Your task to perform on an android device: Go to accessibility settings Image 0: 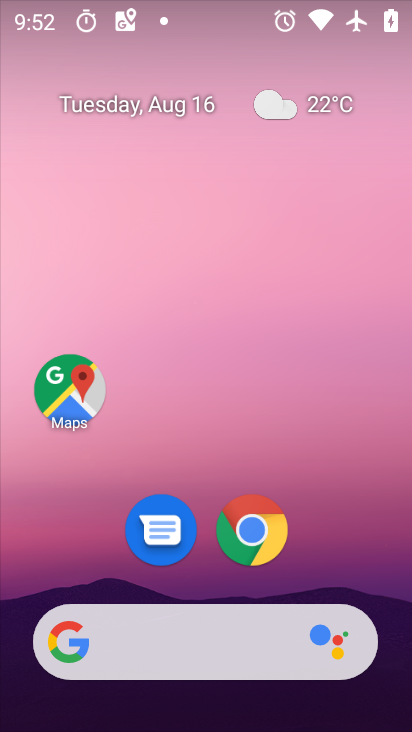
Step 0: drag from (340, 516) to (317, 146)
Your task to perform on an android device: Go to accessibility settings Image 1: 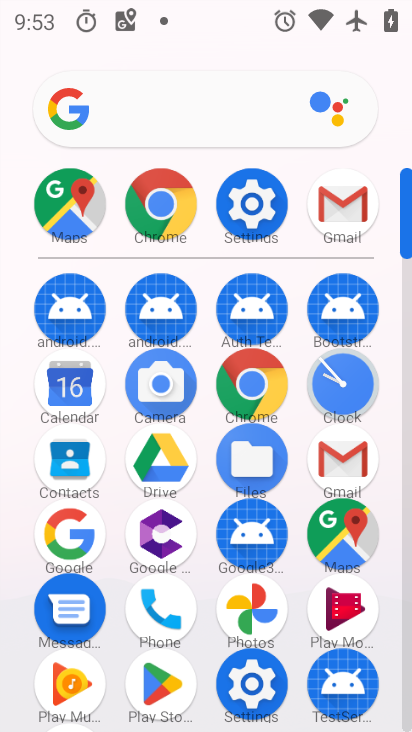
Step 1: click (249, 682)
Your task to perform on an android device: Go to accessibility settings Image 2: 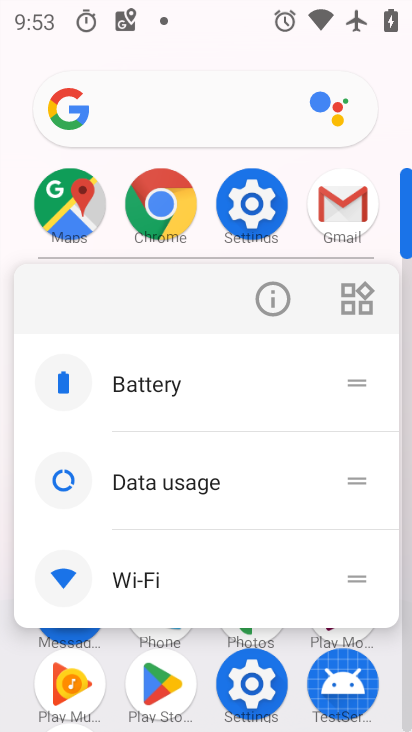
Step 2: click (255, 687)
Your task to perform on an android device: Go to accessibility settings Image 3: 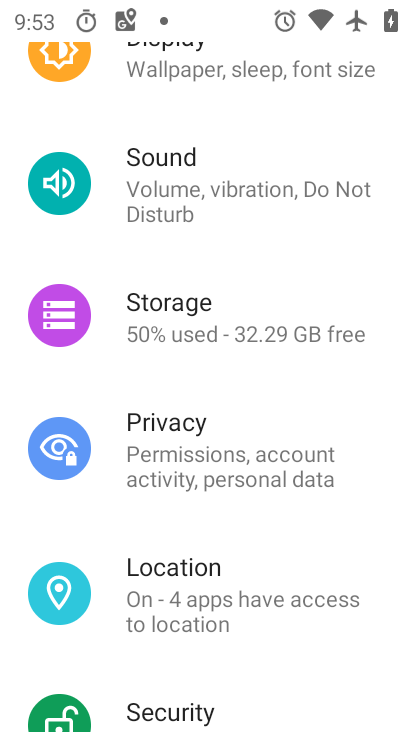
Step 3: drag from (333, 624) to (363, 81)
Your task to perform on an android device: Go to accessibility settings Image 4: 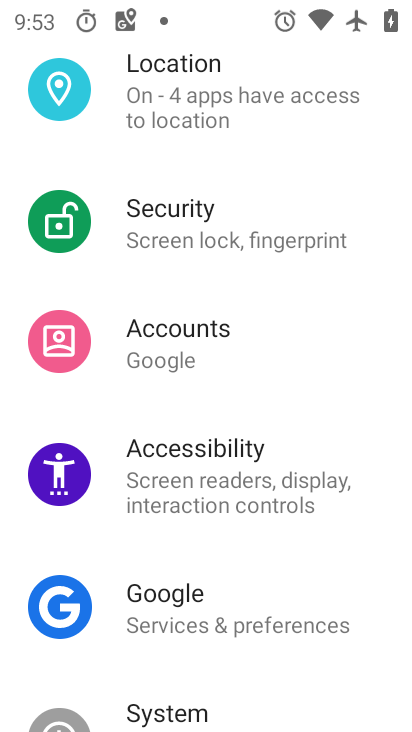
Step 4: click (216, 491)
Your task to perform on an android device: Go to accessibility settings Image 5: 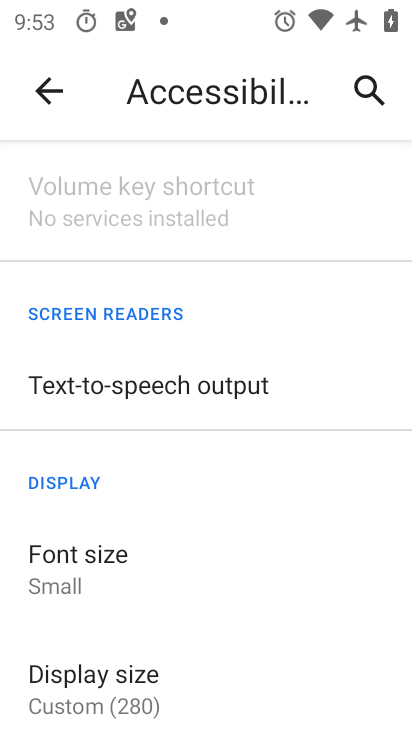
Step 5: task complete